Your task to perform on an android device: clear history in the chrome app Image 0: 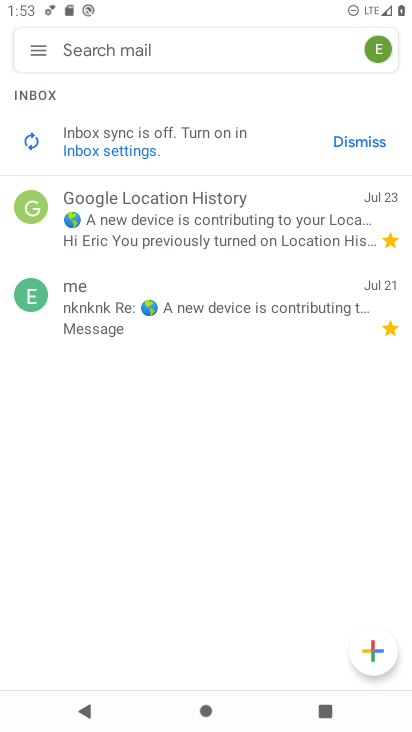
Step 0: press home button
Your task to perform on an android device: clear history in the chrome app Image 1: 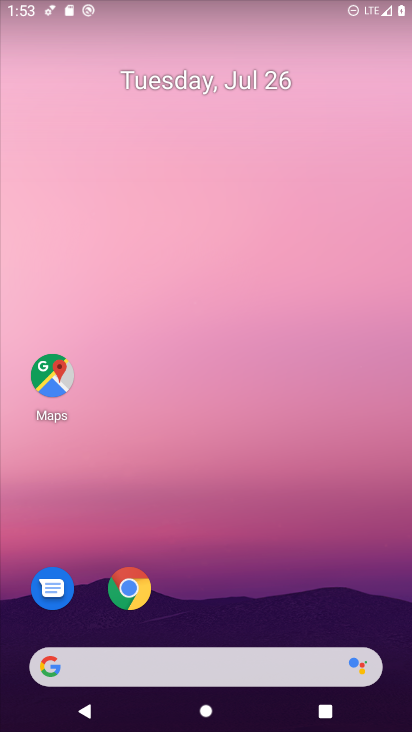
Step 1: drag from (214, 633) to (124, 92)
Your task to perform on an android device: clear history in the chrome app Image 2: 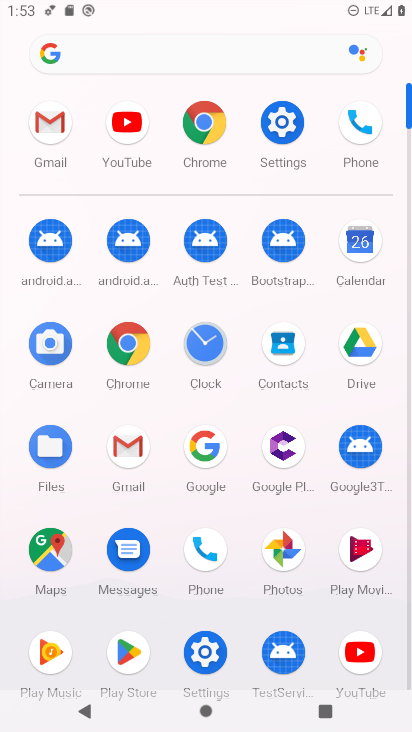
Step 2: click (219, 117)
Your task to perform on an android device: clear history in the chrome app Image 3: 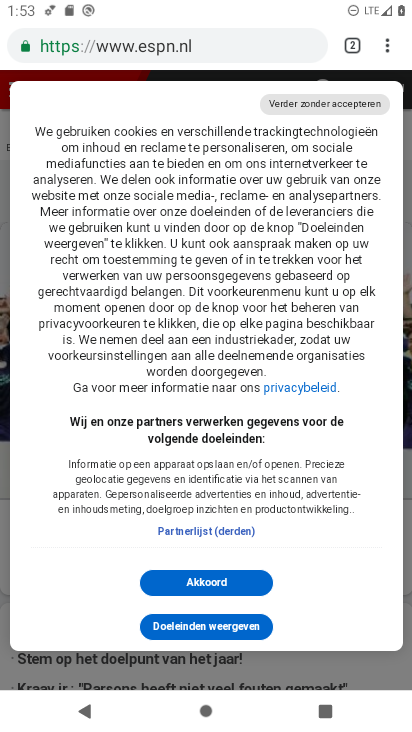
Step 3: click (210, 584)
Your task to perform on an android device: clear history in the chrome app Image 4: 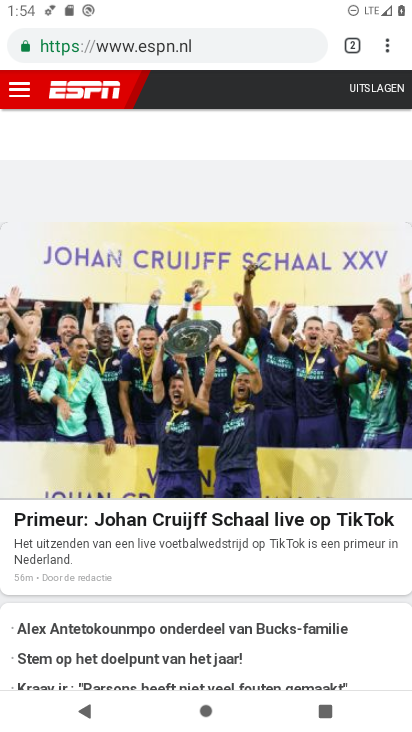
Step 4: click (387, 44)
Your task to perform on an android device: clear history in the chrome app Image 5: 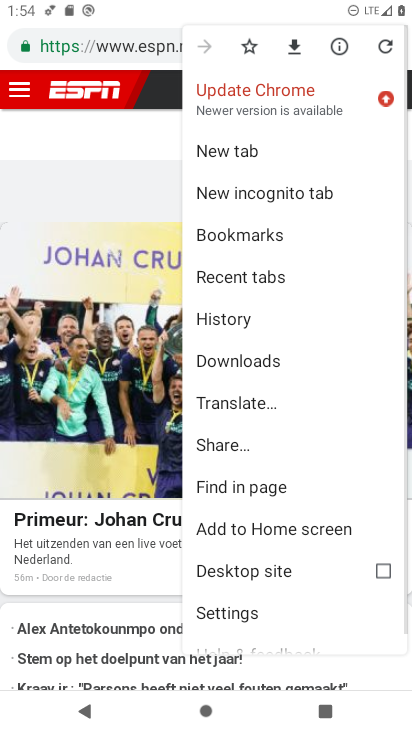
Step 5: click (248, 316)
Your task to perform on an android device: clear history in the chrome app Image 6: 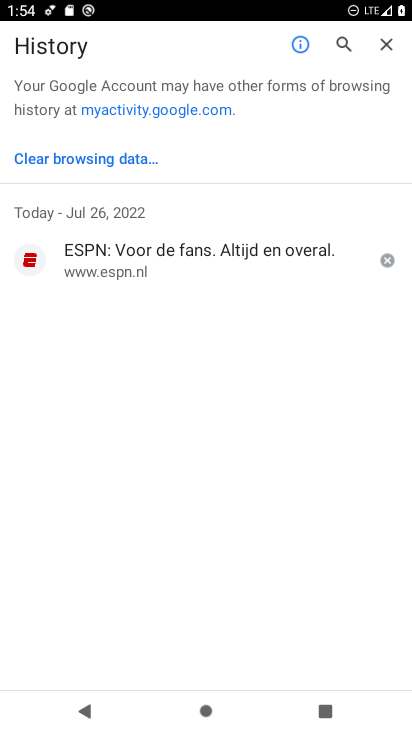
Step 6: click (71, 154)
Your task to perform on an android device: clear history in the chrome app Image 7: 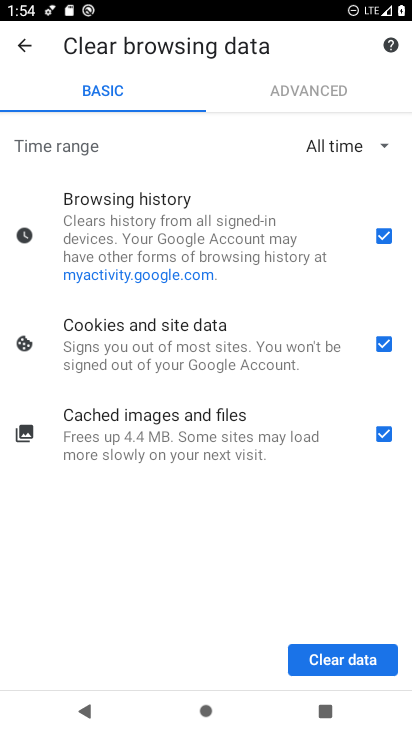
Step 7: click (364, 658)
Your task to perform on an android device: clear history in the chrome app Image 8: 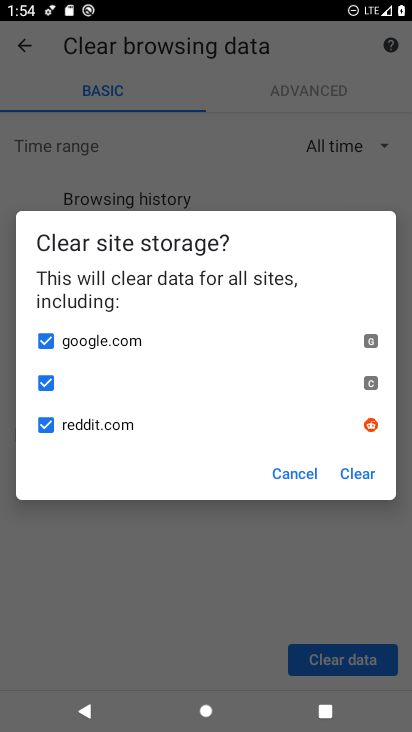
Step 8: click (355, 473)
Your task to perform on an android device: clear history in the chrome app Image 9: 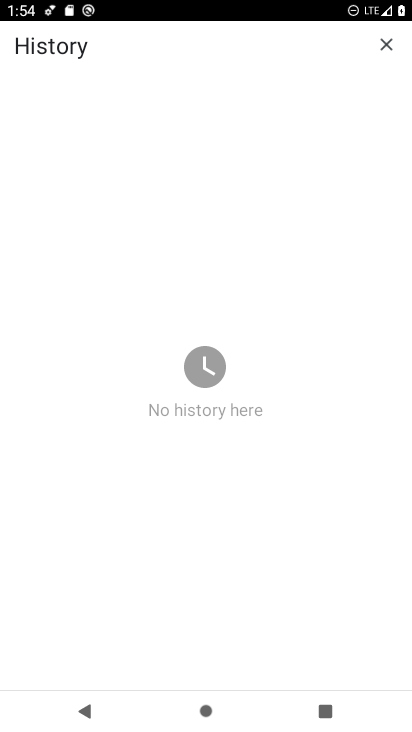
Step 9: task complete